Your task to perform on an android device: find which apps use the phone's location Image 0: 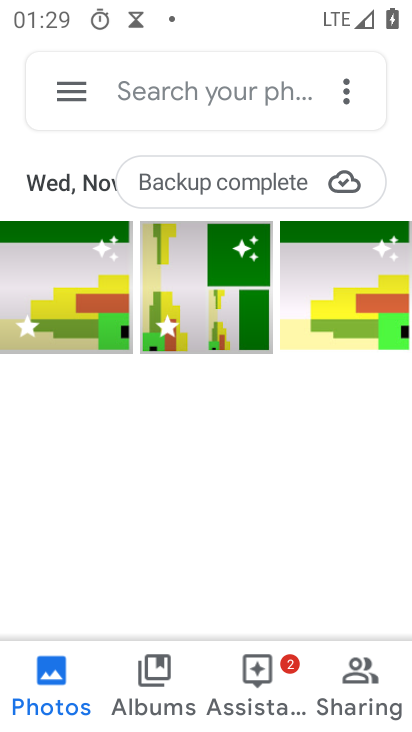
Step 0: press home button
Your task to perform on an android device: find which apps use the phone's location Image 1: 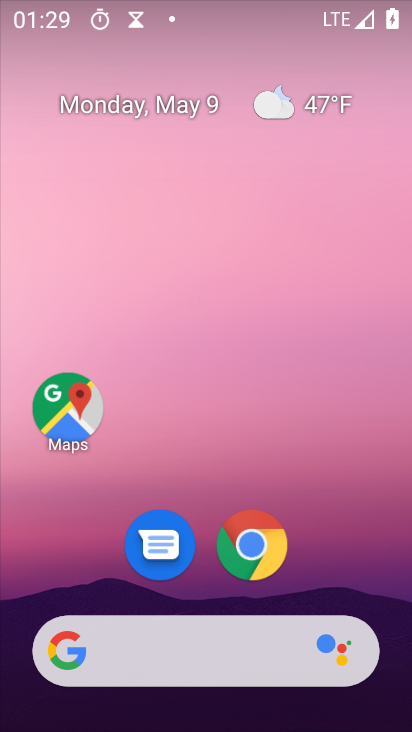
Step 1: drag from (216, 639) to (222, 78)
Your task to perform on an android device: find which apps use the phone's location Image 2: 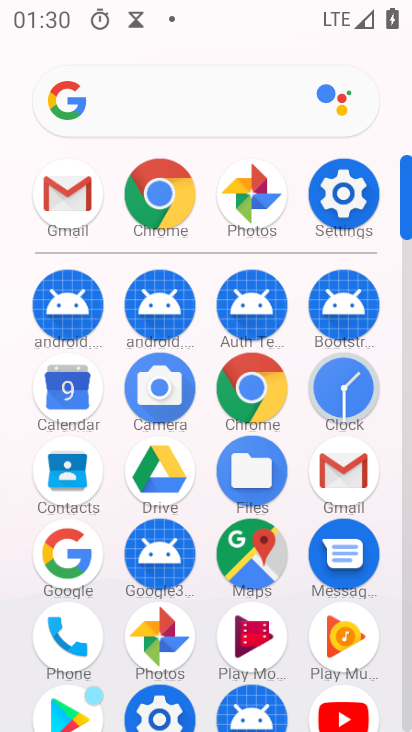
Step 2: drag from (296, 540) to (295, 205)
Your task to perform on an android device: find which apps use the phone's location Image 3: 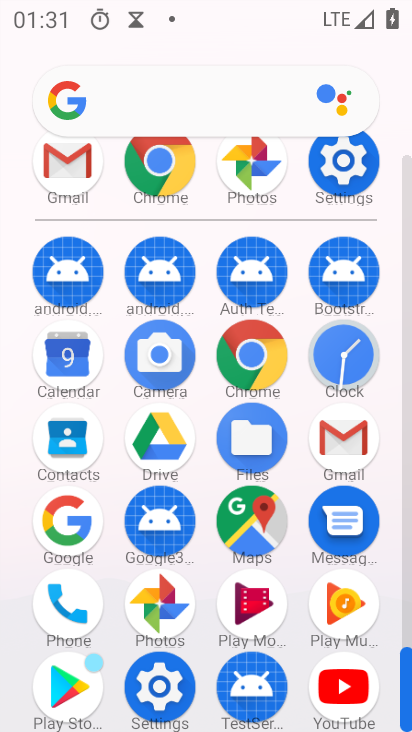
Step 3: click (334, 177)
Your task to perform on an android device: find which apps use the phone's location Image 4: 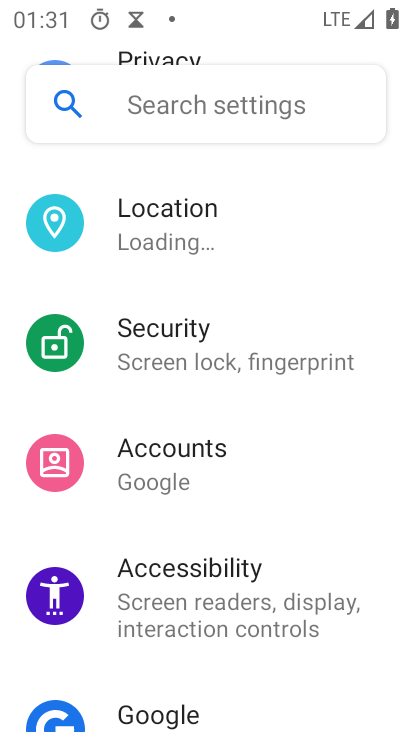
Step 4: drag from (242, 634) to (239, 199)
Your task to perform on an android device: find which apps use the phone's location Image 5: 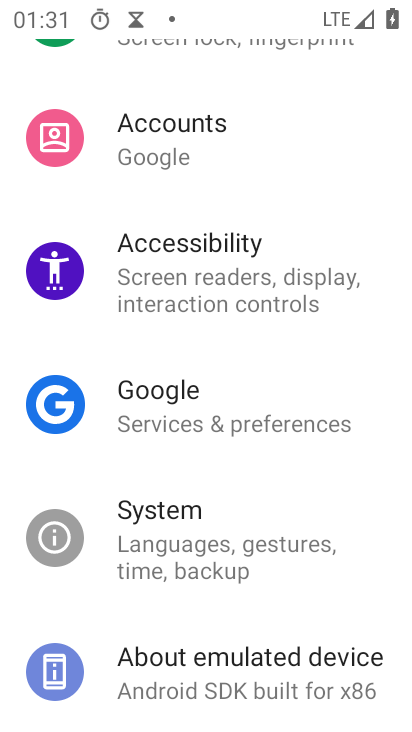
Step 5: drag from (261, 282) to (284, 727)
Your task to perform on an android device: find which apps use the phone's location Image 6: 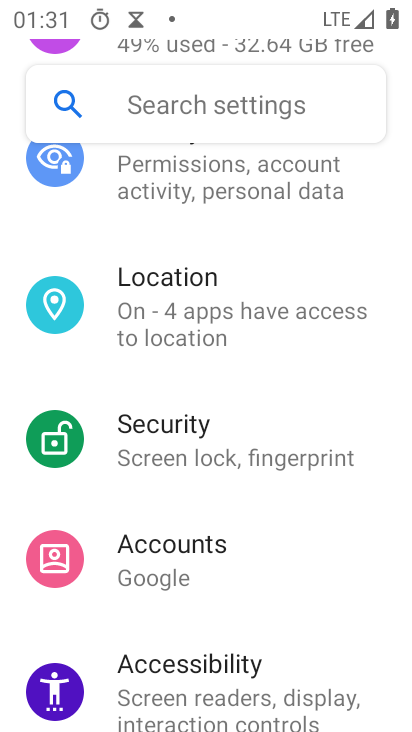
Step 6: click (223, 335)
Your task to perform on an android device: find which apps use the phone's location Image 7: 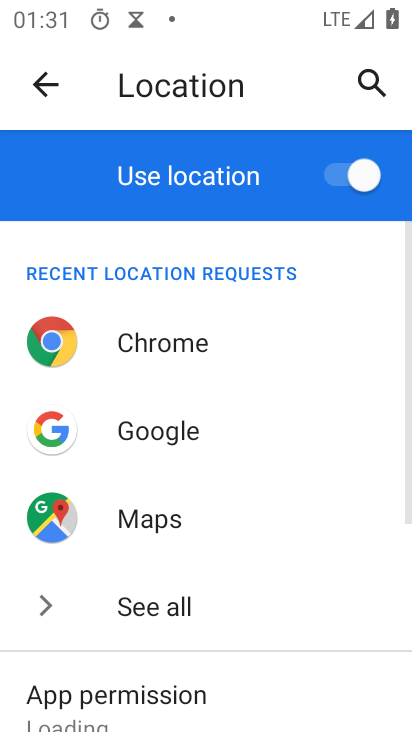
Step 7: task complete